Your task to perform on an android device: Show me popular videos on Youtube Image 0: 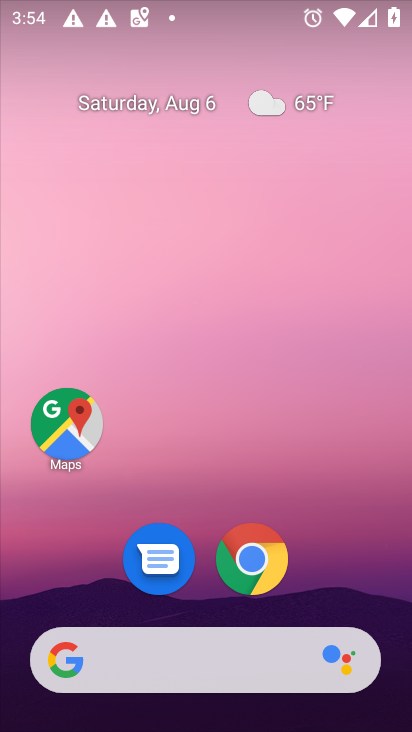
Step 0: drag from (325, 514) to (296, 43)
Your task to perform on an android device: Show me popular videos on Youtube Image 1: 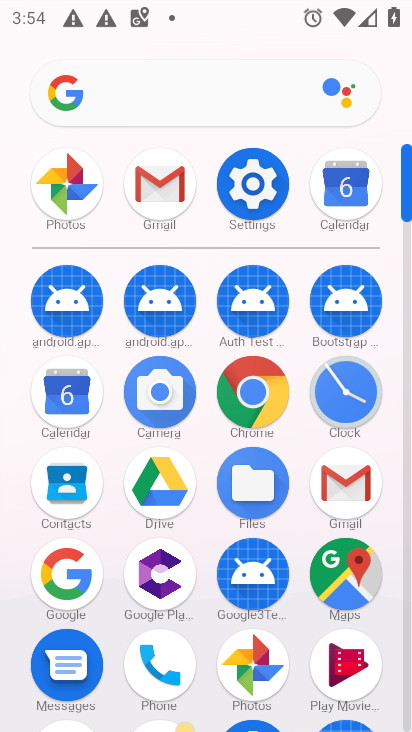
Step 1: drag from (290, 532) to (303, 236)
Your task to perform on an android device: Show me popular videos on Youtube Image 2: 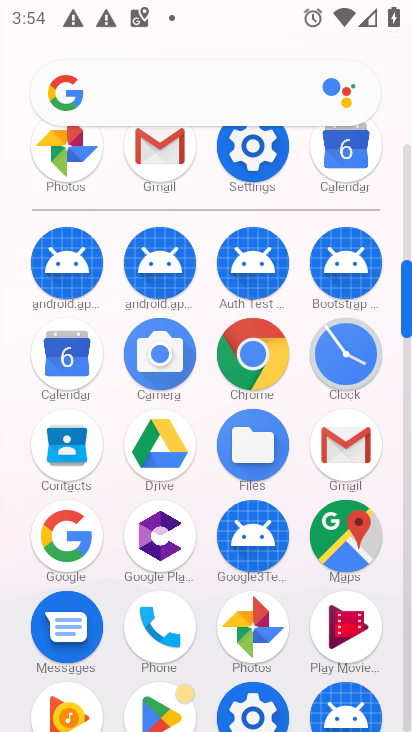
Step 2: drag from (289, 433) to (321, 168)
Your task to perform on an android device: Show me popular videos on Youtube Image 3: 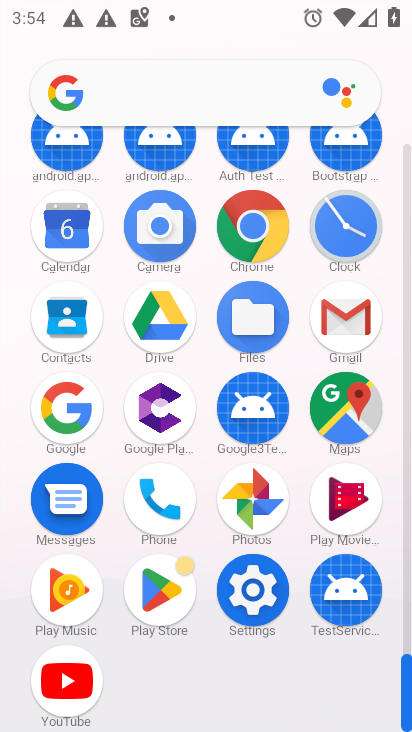
Step 3: click (71, 665)
Your task to perform on an android device: Show me popular videos on Youtube Image 4: 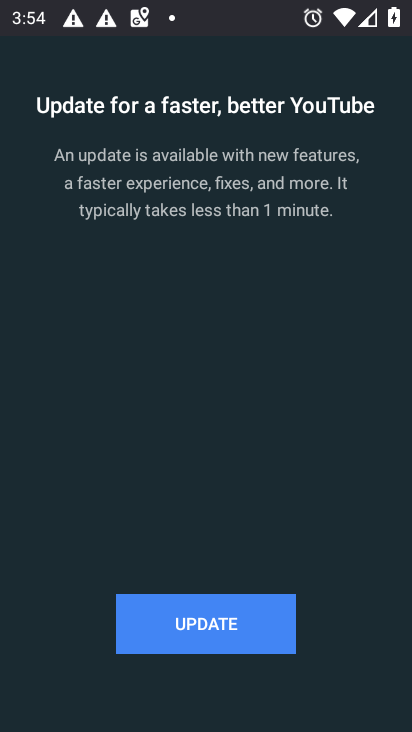
Step 4: click (257, 622)
Your task to perform on an android device: Show me popular videos on Youtube Image 5: 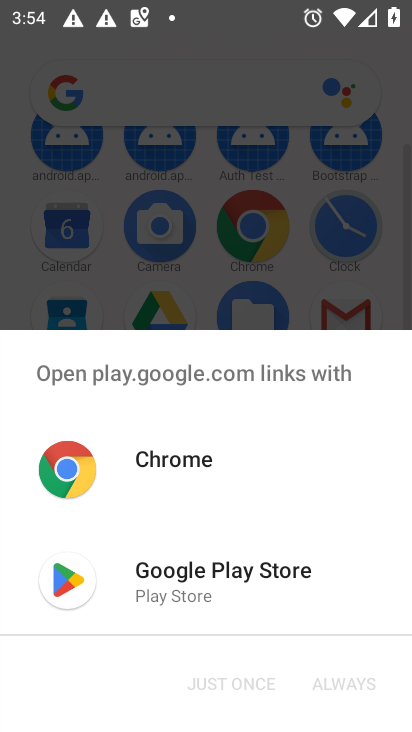
Step 5: click (187, 570)
Your task to perform on an android device: Show me popular videos on Youtube Image 6: 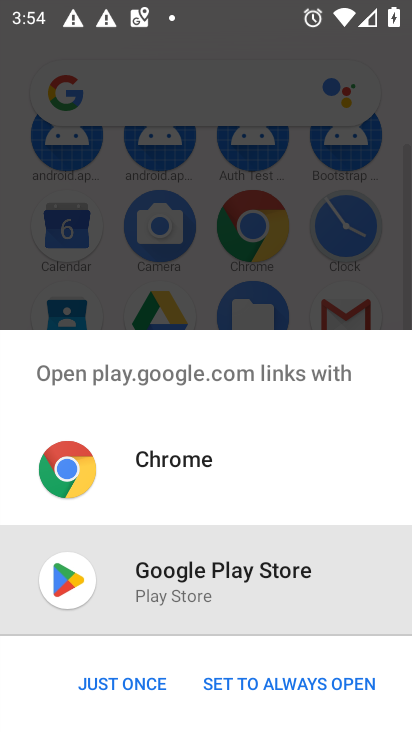
Step 6: click (144, 684)
Your task to perform on an android device: Show me popular videos on Youtube Image 7: 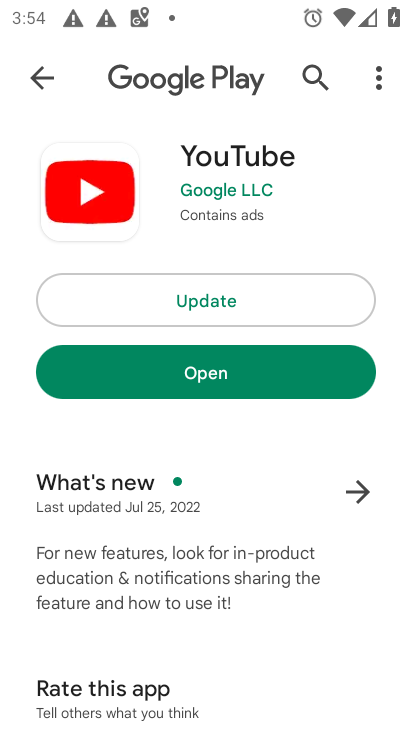
Step 7: click (278, 308)
Your task to perform on an android device: Show me popular videos on Youtube Image 8: 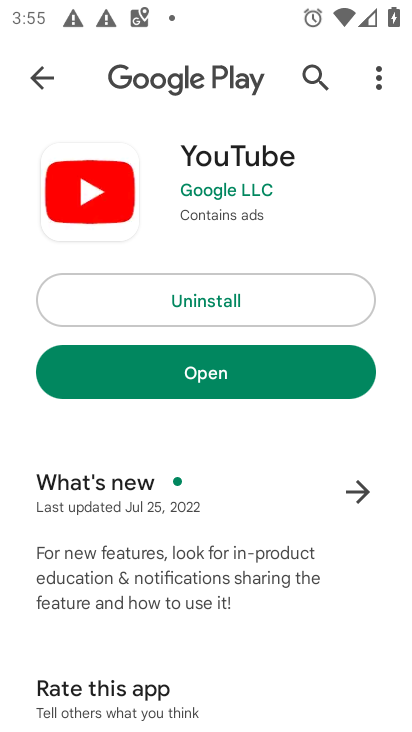
Step 8: click (220, 366)
Your task to perform on an android device: Show me popular videos on Youtube Image 9: 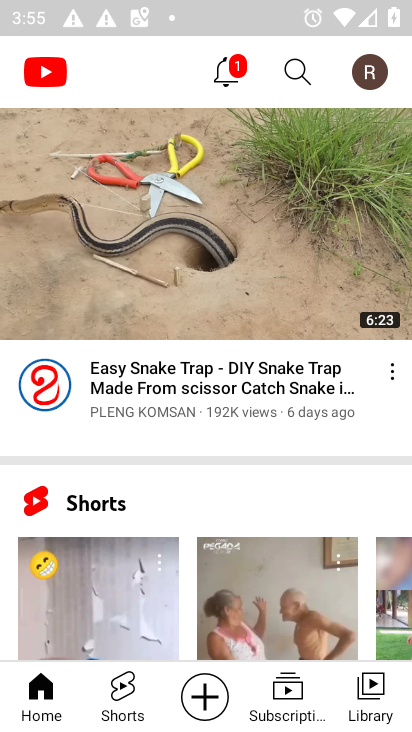
Step 9: click (294, 59)
Your task to perform on an android device: Show me popular videos on Youtube Image 10: 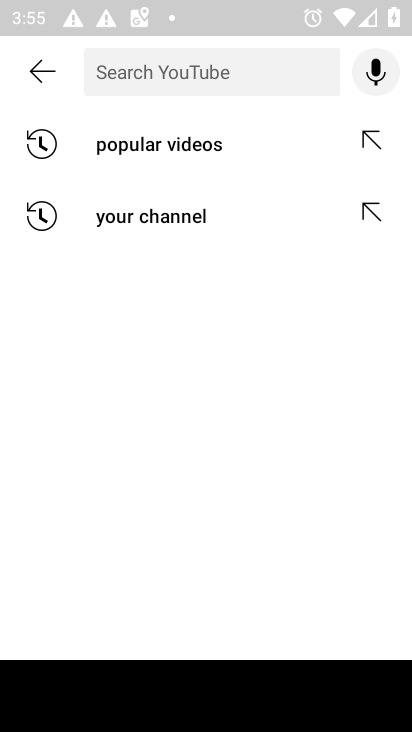
Step 10: click (217, 134)
Your task to perform on an android device: Show me popular videos on Youtube Image 11: 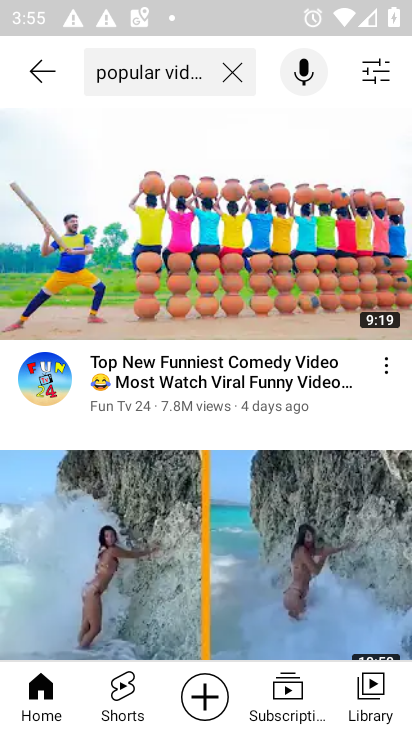
Step 11: task complete